Your task to perform on an android device: open app "Chime – Mobile Banking" (install if not already installed) and enter user name: "bullfrog@inbox.com" and password: "breaker" Image 0: 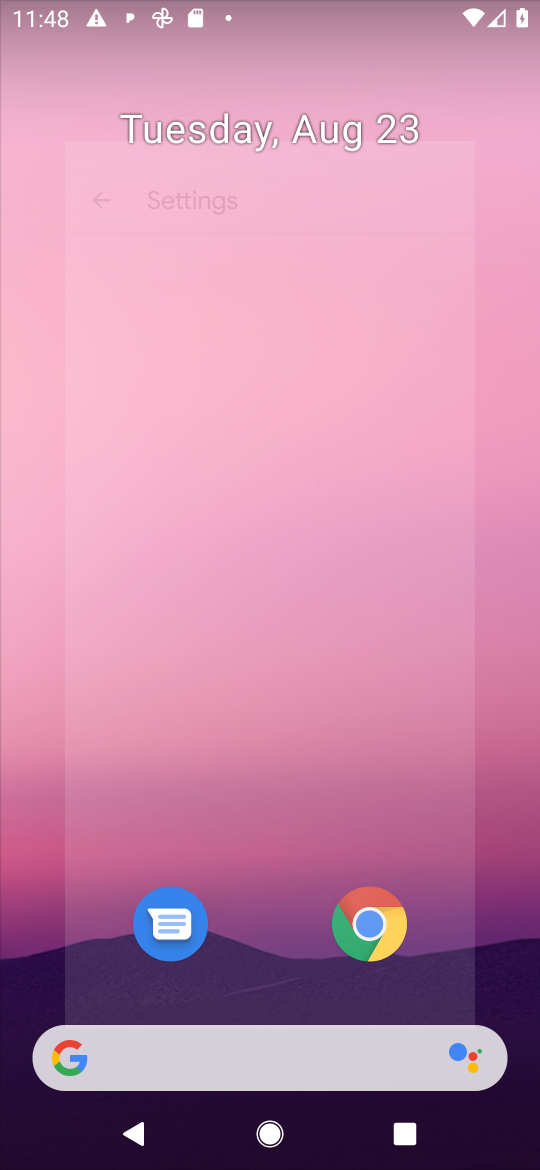
Step 0: press home button
Your task to perform on an android device: open app "Chime – Mobile Banking" (install if not already installed) and enter user name: "bullfrog@inbox.com" and password: "breaker" Image 1: 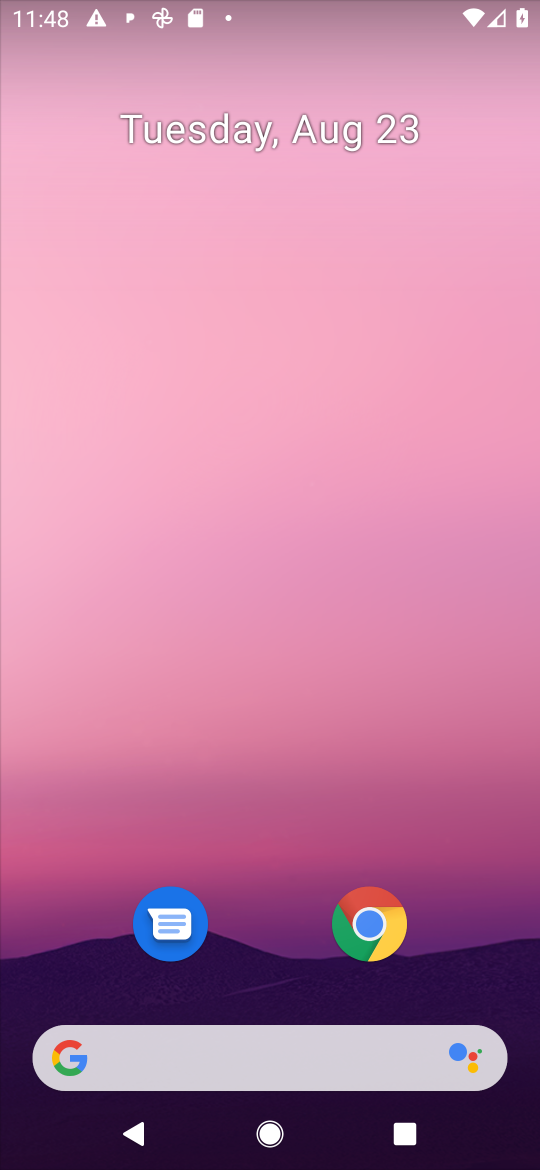
Step 1: drag from (469, 994) to (459, 219)
Your task to perform on an android device: open app "Chime – Mobile Banking" (install if not already installed) and enter user name: "bullfrog@inbox.com" and password: "breaker" Image 2: 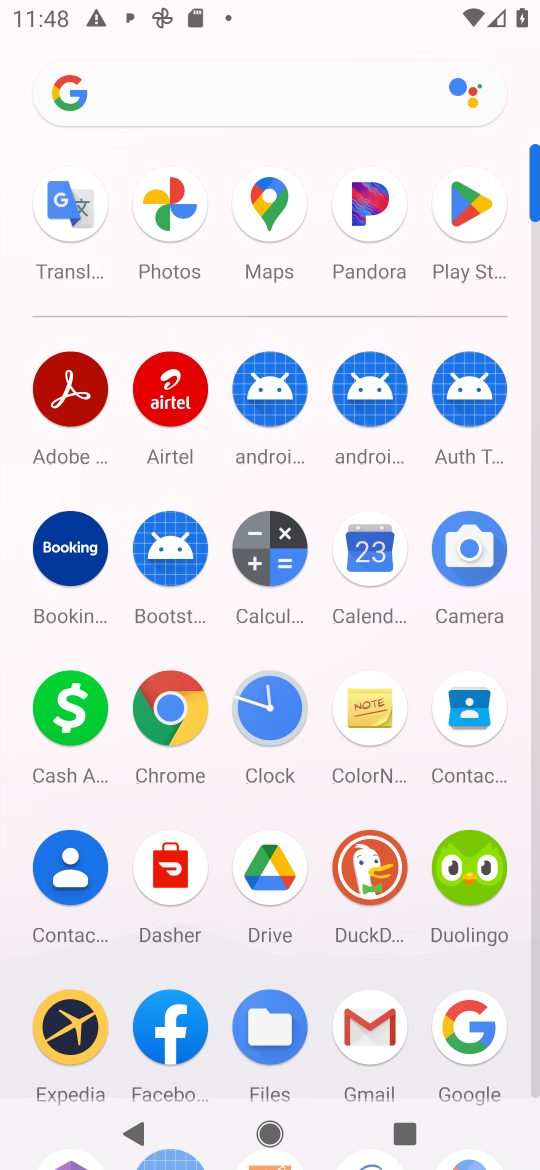
Step 2: click (475, 211)
Your task to perform on an android device: open app "Chime – Mobile Banking" (install if not already installed) and enter user name: "bullfrog@inbox.com" and password: "breaker" Image 3: 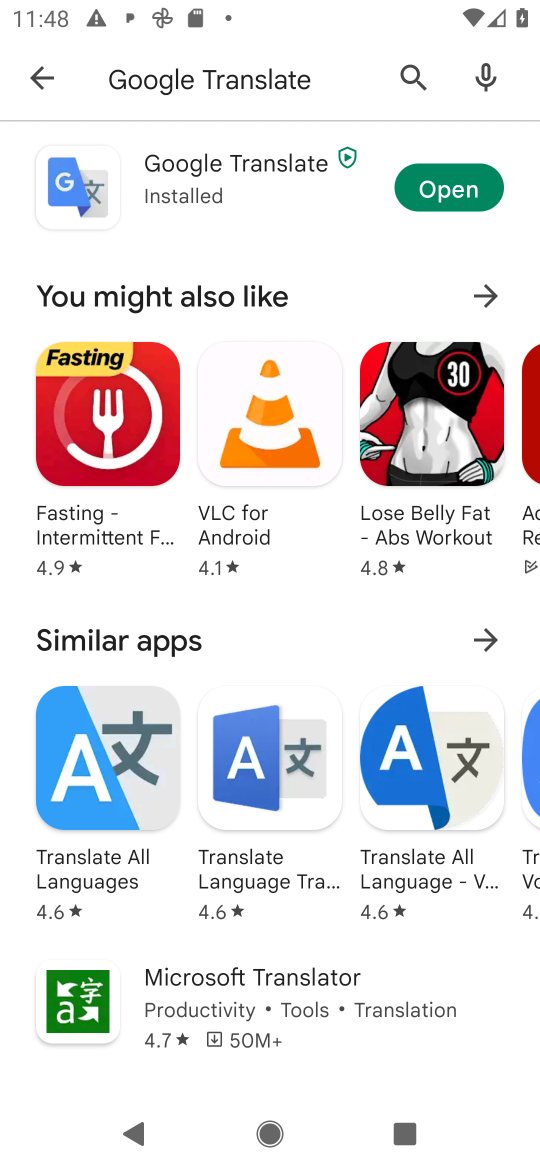
Step 3: press back button
Your task to perform on an android device: open app "Chime – Mobile Banking" (install if not already installed) and enter user name: "bullfrog@inbox.com" and password: "breaker" Image 4: 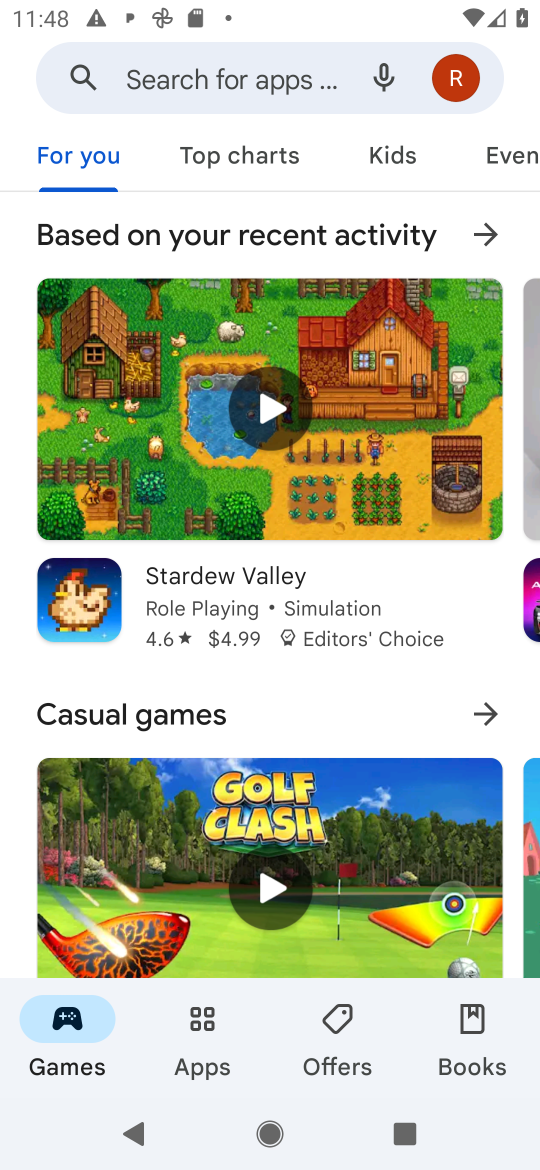
Step 4: click (180, 78)
Your task to perform on an android device: open app "Chime – Mobile Banking" (install if not already installed) and enter user name: "bullfrog@inbox.com" and password: "breaker" Image 5: 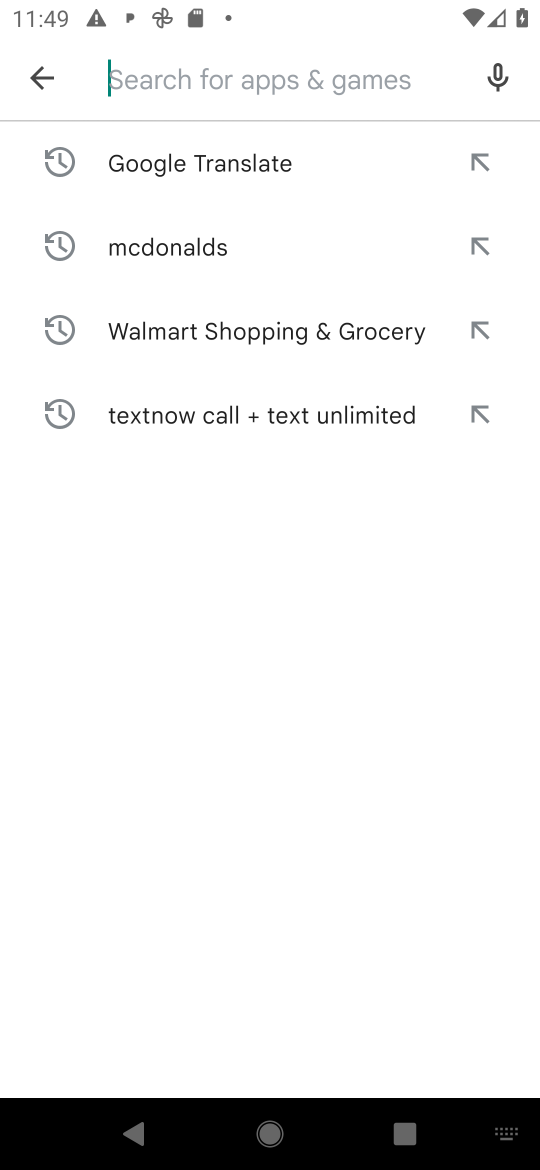
Step 5: type "Chime – Mobile Banking"
Your task to perform on an android device: open app "Chime – Mobile Banking" (install if not already installed) and enter user name: "bullfrog@inbox.com" and password: "breaker" Image 6: 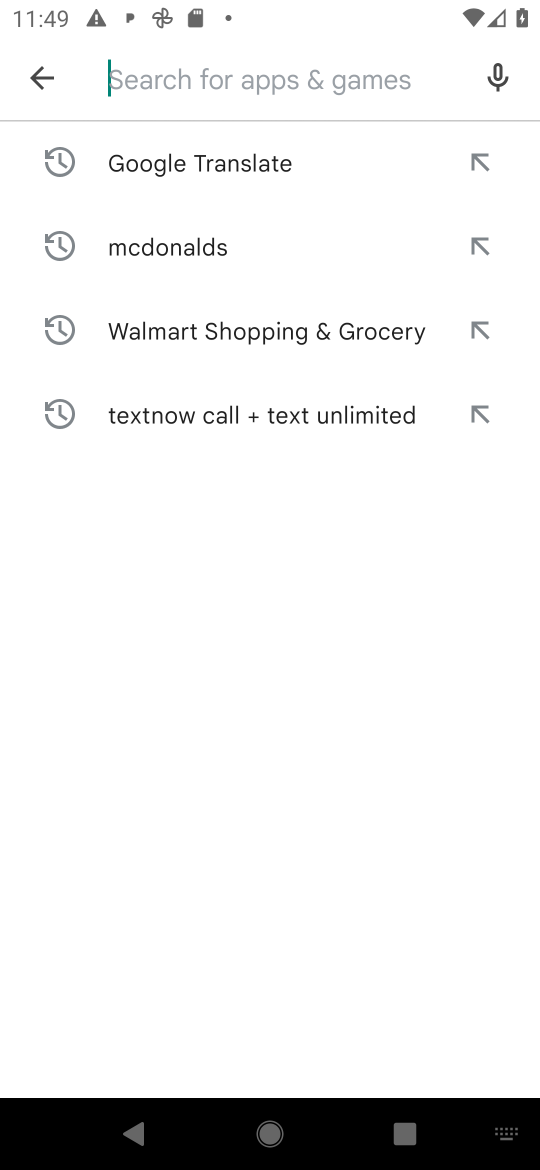
Step 6: press enter
Your task to perform on an android device: open app "Chime – Mobile Banking" (install if not already installed) and enter user name: "bullfrog@inbox.com" and password: "breaker" Image 7: 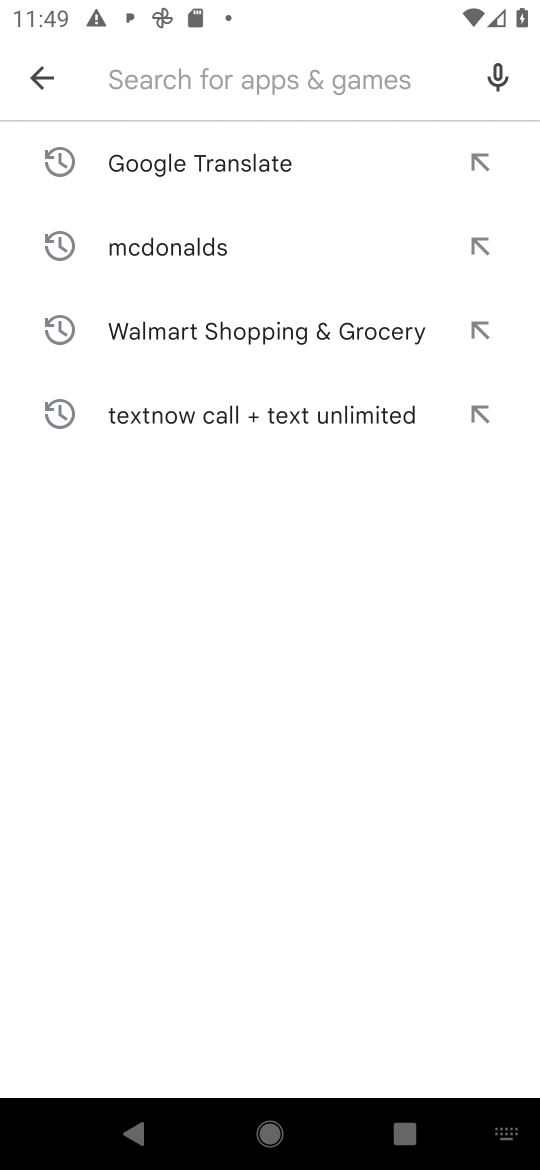
Step 7: click (353, 82)
Your task to perform on an android device: open app "Chime – Mobile Banking" (install if not already installed) and enter user name: "bullfrog@inbox.com" and password: "breaker" Image 8: 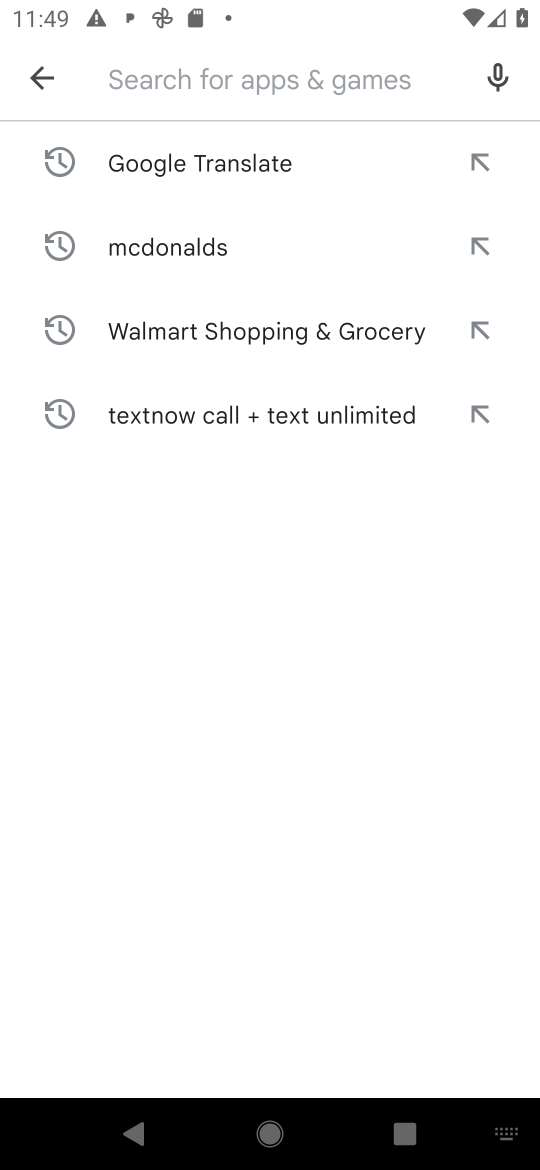
Step 8: type "Chime – Mobile Banking"
Your task to perform on an android device: open app "Chime – Mobile Banking" (install if not already installed) and enter user name: "bullfrog@inbox.com" and password: "breaker" Image 9: 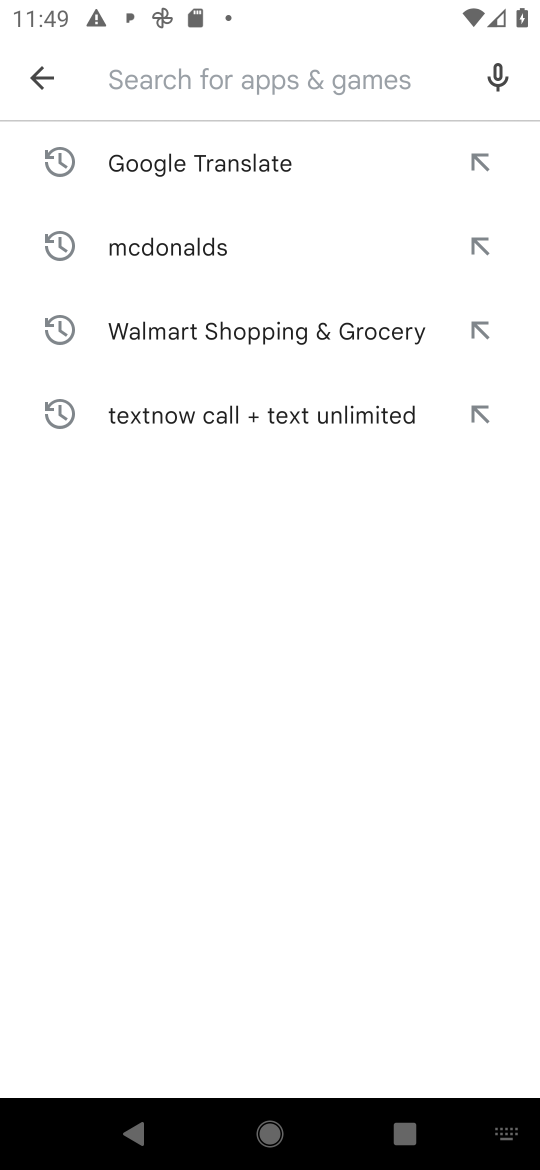
Step 9: task complete